Your task to perform on an android device: Open Yahoo.com Image 0: 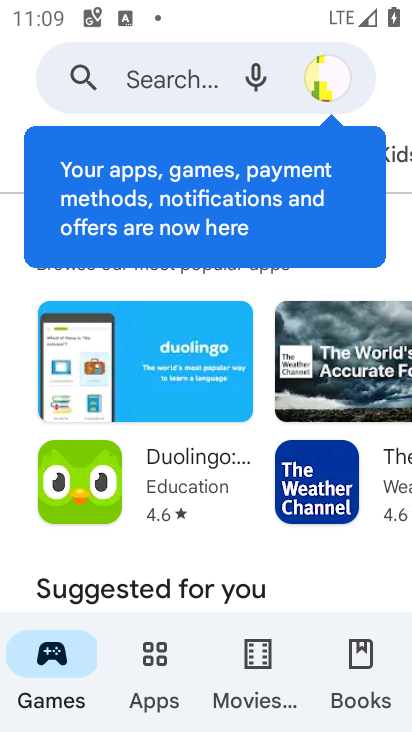
Step 0: press home button
Your task to perform on an android device: Open Yahoo.com Image 1: 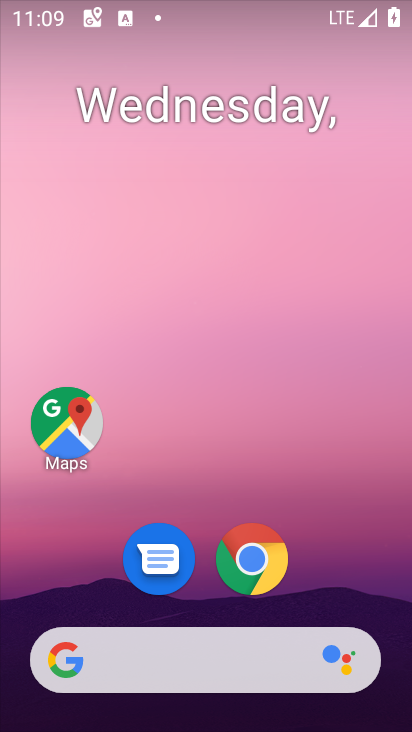
Step 1: drag from (259, 645) to (336, 151)
Your task to perform on an android device: Open Yahoo.com Image 2: 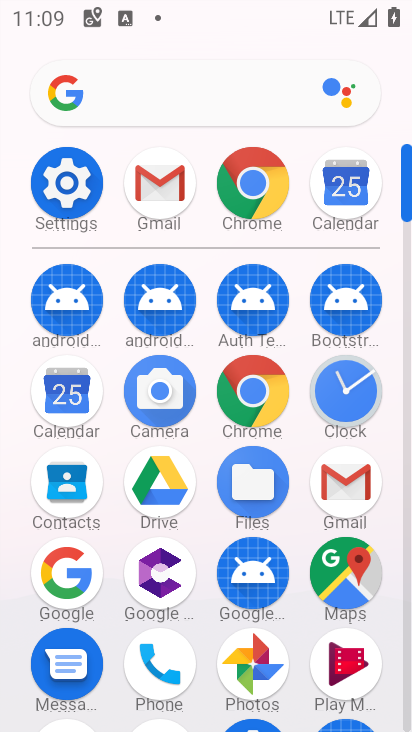
Step 2: click (277, 191)
Your task to perform on an android device: Open Yahoo.com Image 3: 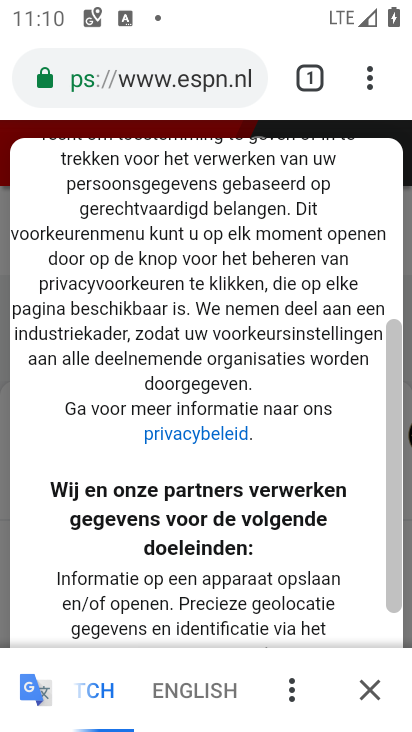
Step 3: click (225, 84)
Your task to perform on an android device: Open Yahoo.com Image 4: 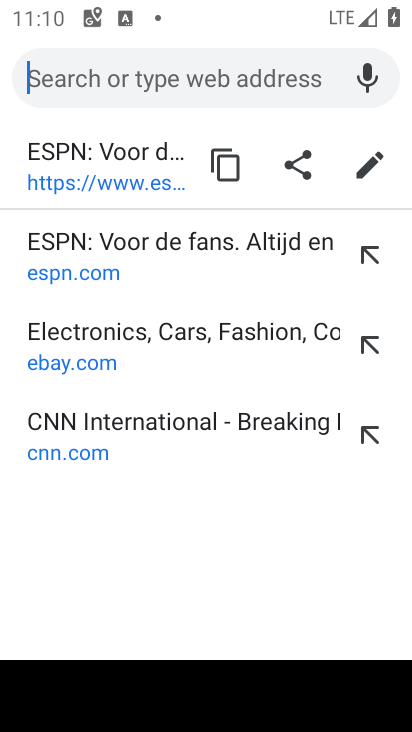
Step 4: type "yahoo"
Your task to perform on an android device: Open Yahoo.com Image 5: 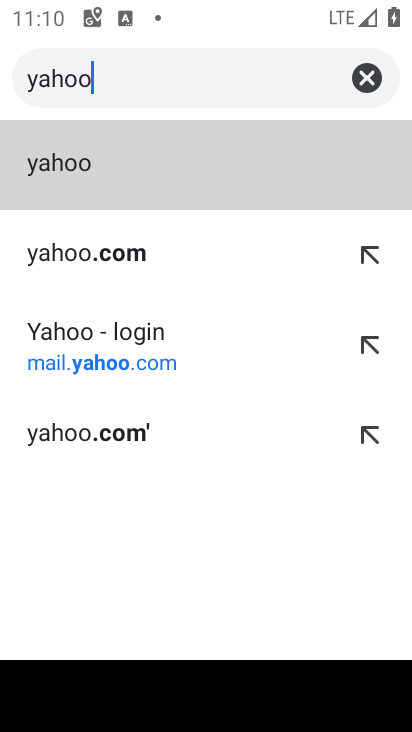
Step 5: click (180, 372)
Your task to perform on an android device: Open Yahoo.com Image 6: 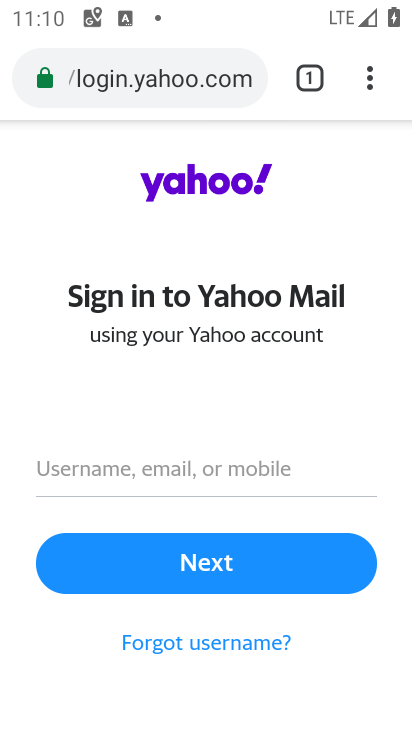
Step 6: task complete